Your task to perform on an android device: What's the weather today? Image 0: 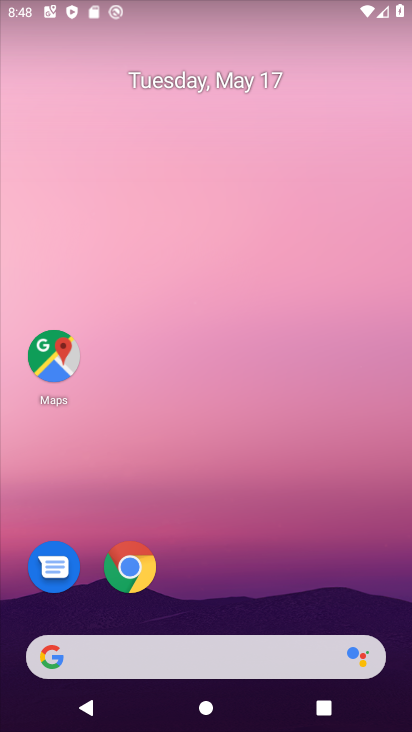
Step 0: click (194, 648)
Your task to perform on an android device: What's the weather today? Image 1: 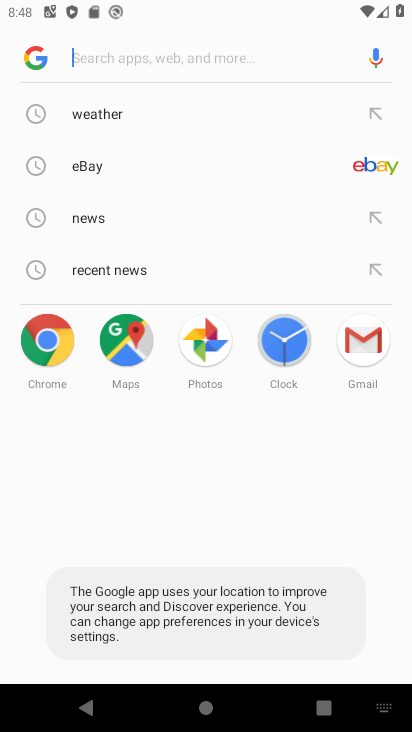
Step 1: click (95, 108)
Your task to perform on an android device: What's the weather today? Image 2: 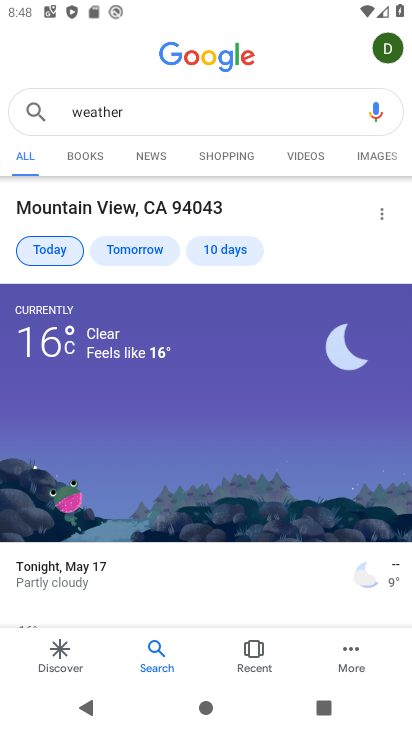
Step 2: task complete